Your task to perform on an android device: turn on location history Image 0: 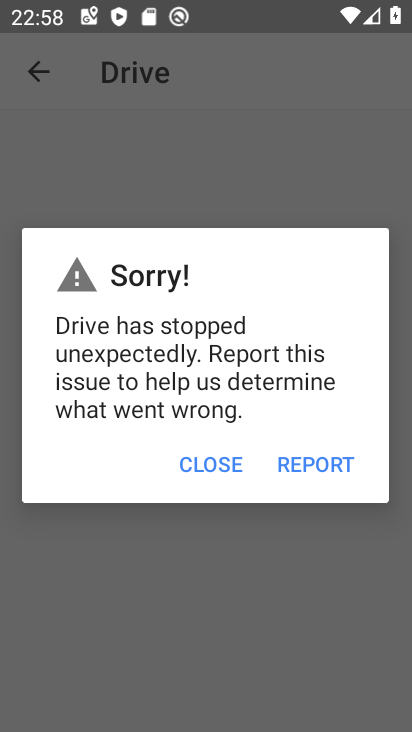
Step 0: press home button
Your task to perform on an android device: turn on location history Image 1: 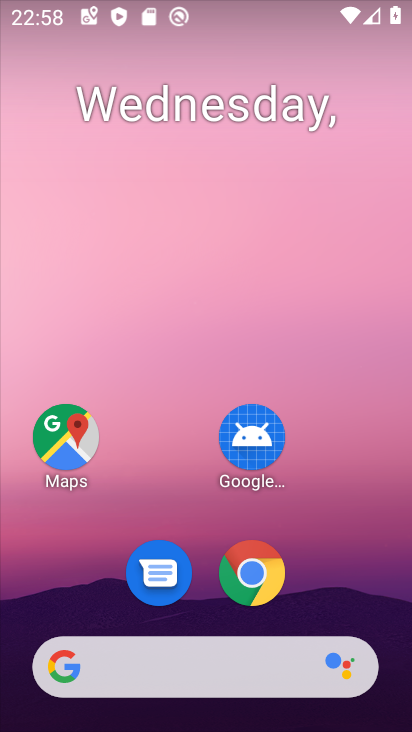
Step 1: drag from (147, 489) to (172, 0)
Your task to perform on an android device: turn on location history Image 2: 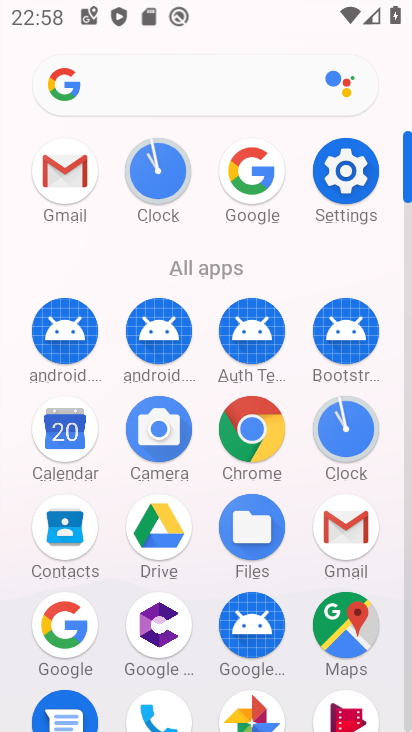
Step 2: click (345, 171)
Your task to perform on an android device: turn on location history Image 3: 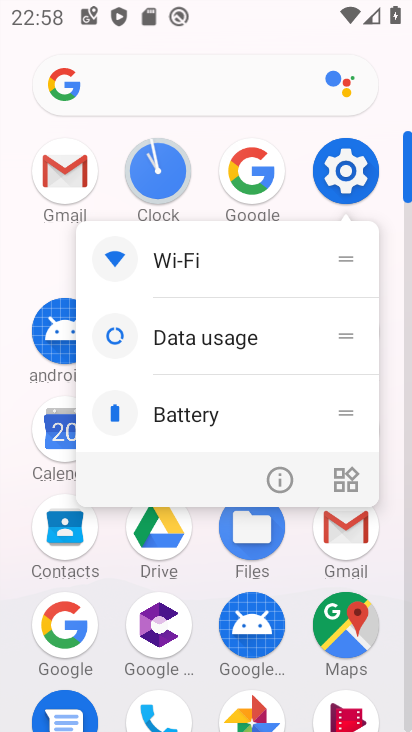
Step 3: click (345, 171)
Your task to perform on an android device: turn on location history Image 4: 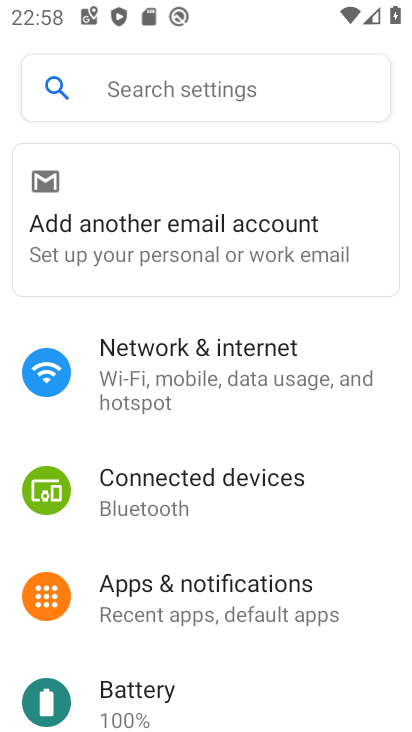
Step 4: click (252, 423)
Your task to perform on an android device: turn on location history Image 5: 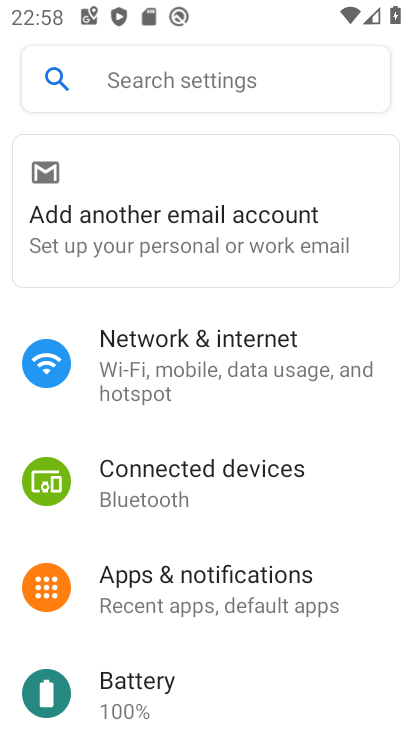
Step 5: drag from (239, 541) to (267, 398)
Your task to perform on an android device: turn on location history Image 6: 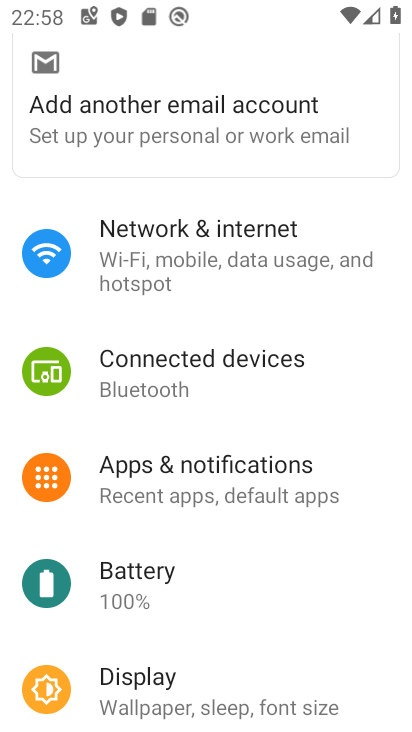
Step 6: drag from (244, 558) to (281, 423)
Your task to perform on an android device: turn on location history Image 7: 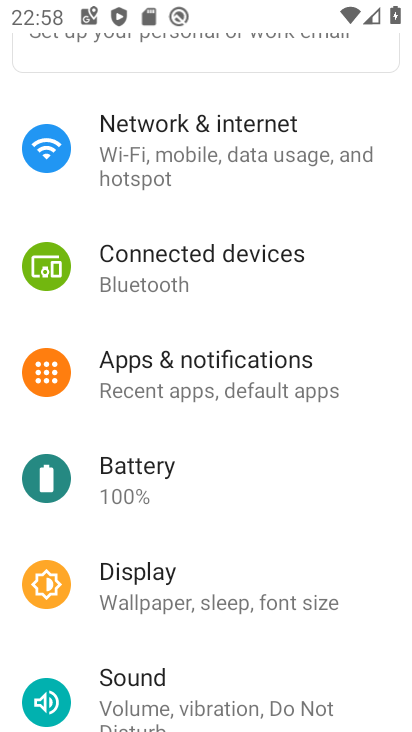
Step 7: drag from (232, 552) to (249, 397)
Your task to perform on an android device: turn on location history Image 8: 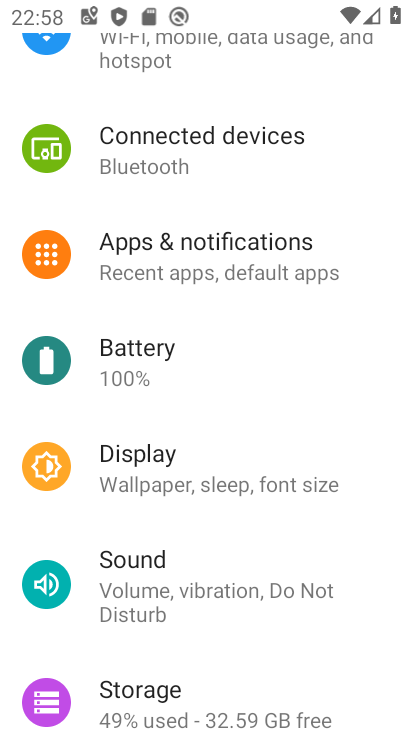
Step 8: drag from (231, 547) to (278, 360)
Your task to perform on an android device: turn on location history Image 9: 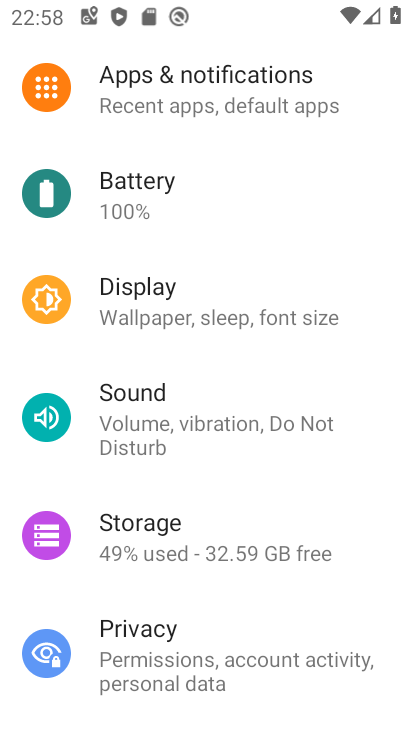
Step 9: drag from (230, 478) to (258, 336)
Your task to perform on an android device: turn on location history Image 10: 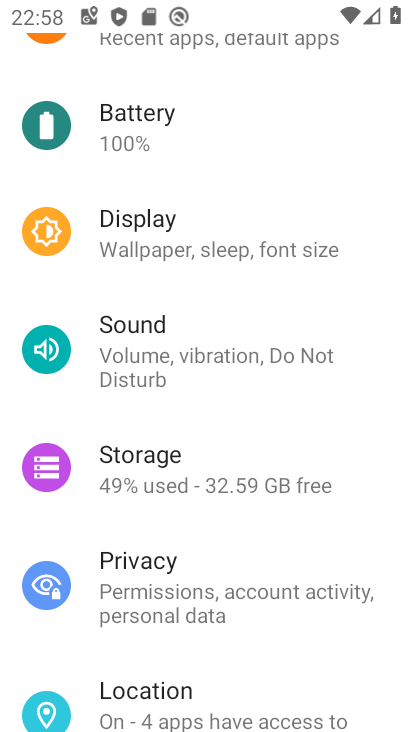
Step 10: drag from (261, 536) to (302, 386)
Your task to perform on an android device: turn on location history Image 11: 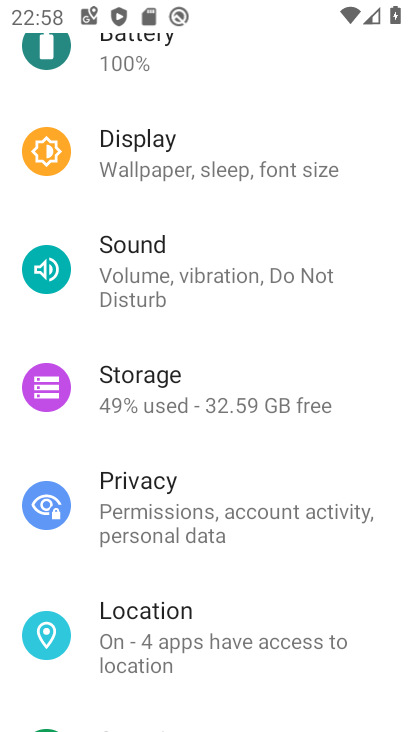
Step 11: click (157, 617)
Your task to perform on an android device: turn on location history Image 12: 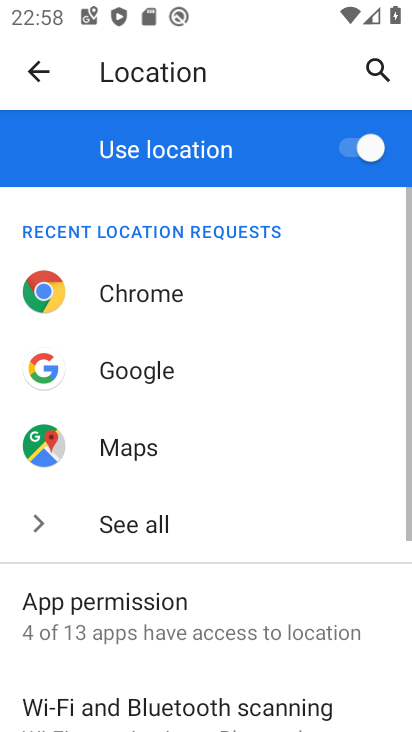
Step 12: drag from (248, 652) to (302, 478)
Your task to perform on an android device: turn on location history Image 13: 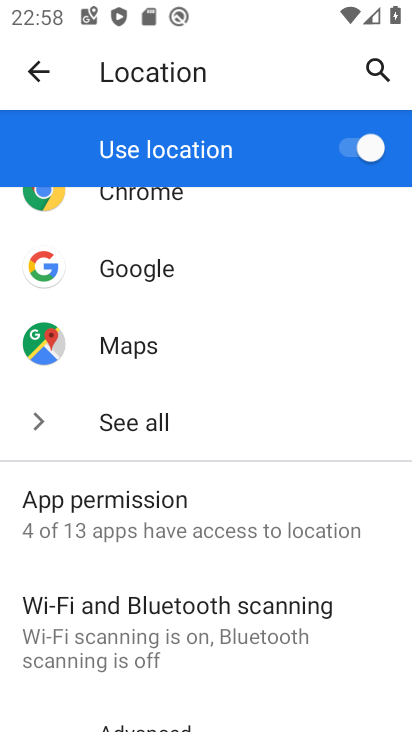
Step 13: drag from (248, 682) to (275, 480)
Your task to perform on an android device: turn on location history Image 14: 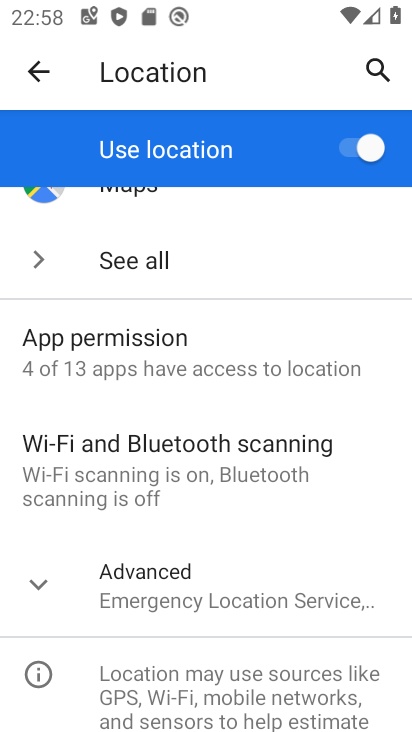
Step 14: click (251, 599)
Your task to perform on an android device: turn on location history Image 15: 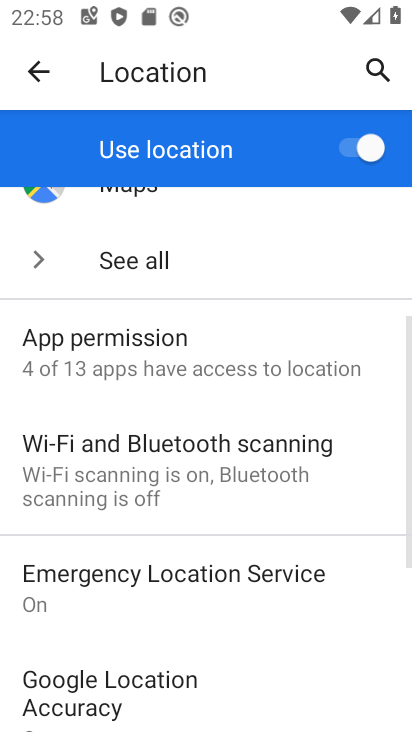
Step 15: drag from (239, 627) to (264, 487)
Your task to perform on an android device: turn on location history Image 16: 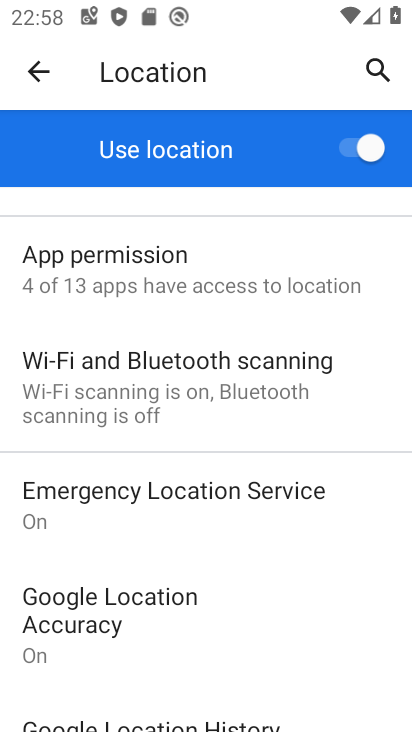
Step 16: drag from (236, 653) to (280, 473)
Your task to perform on an android device: turn on location history Image 17: 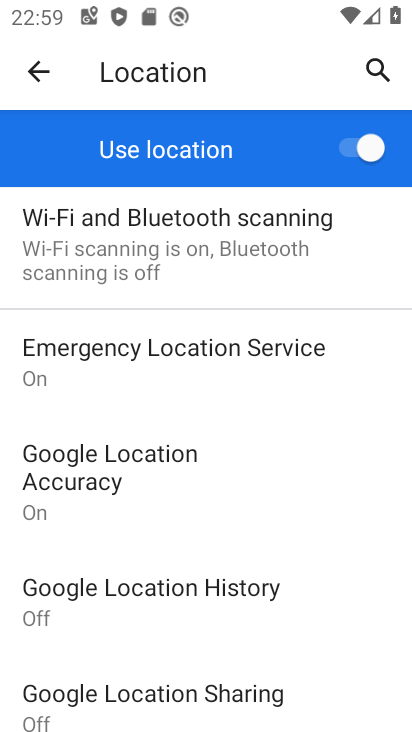
Step 17: click (220, 591)
Your task to perform on an android device: turn on location history Image 18: 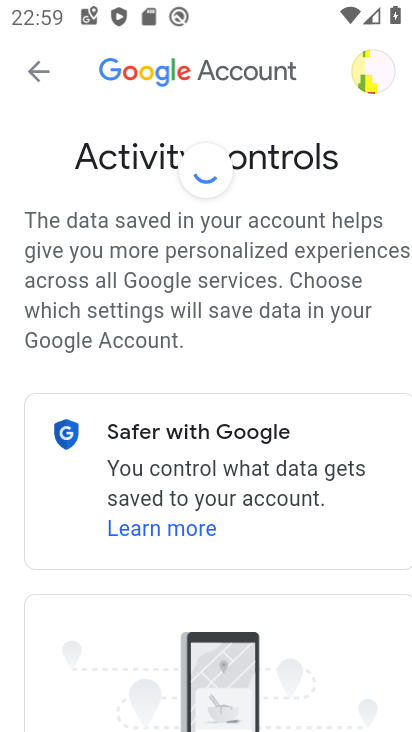
Step 18: drag from (318, 562) to (319, 331)
Your task to perform on an android device: turn on location history Image 19: 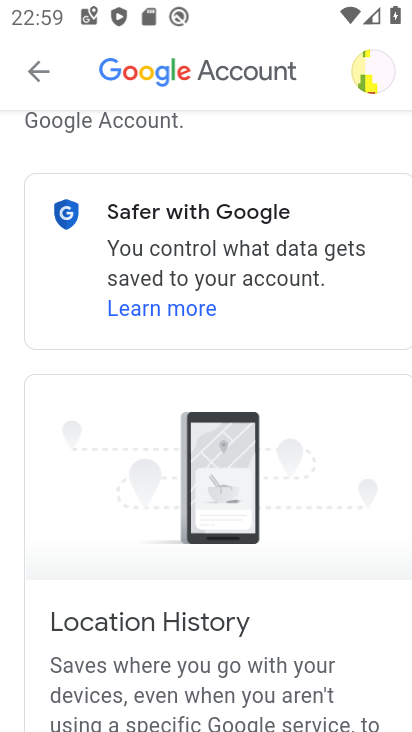
Step 19: drag from (266, 645) to (259, 369)
Your task to perform on an android device: turn on location history Image 20: 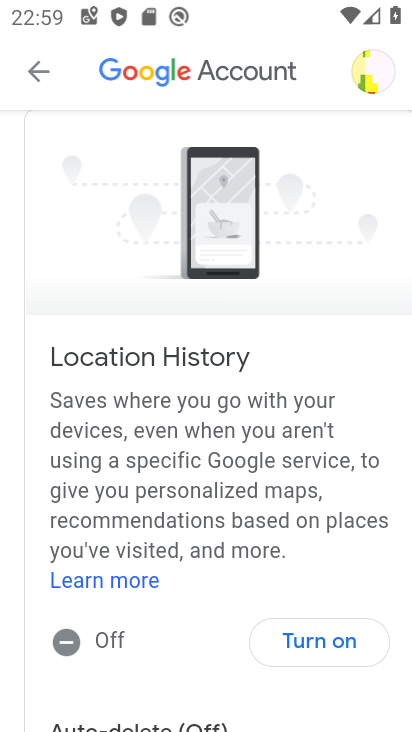
Step 20: click (308, 638)
Your task to perform on an android device: turn on location history Image 21: 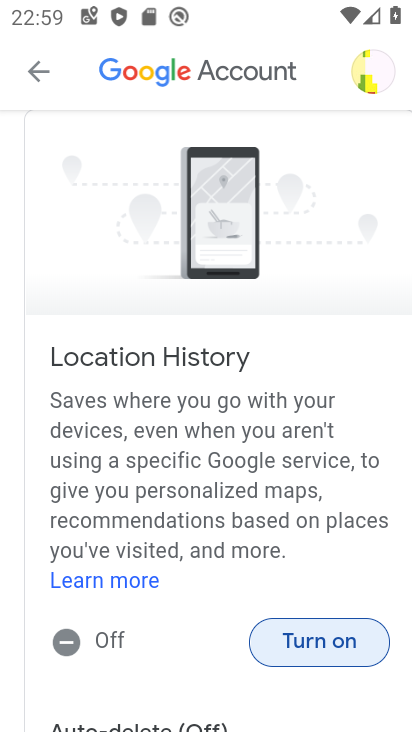
Step 21: click (308, 641)
Your task to perform on an android device: turn on location history Image 22: 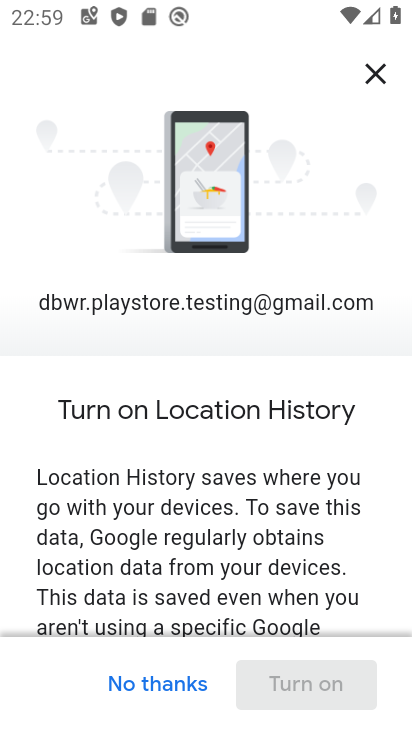
Step 22: task complete